Your task to perform on an android device: Go to network settings Image 0: 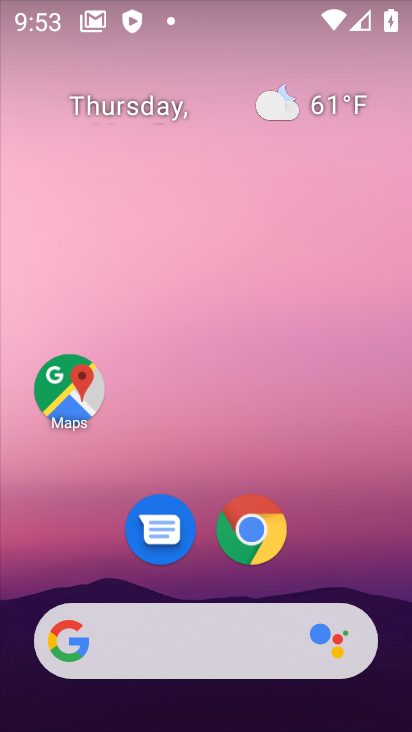
Step 0: drag from (395, 624) to (316, 173)
Your task to perform on an android device: Go to network settings Image 1: 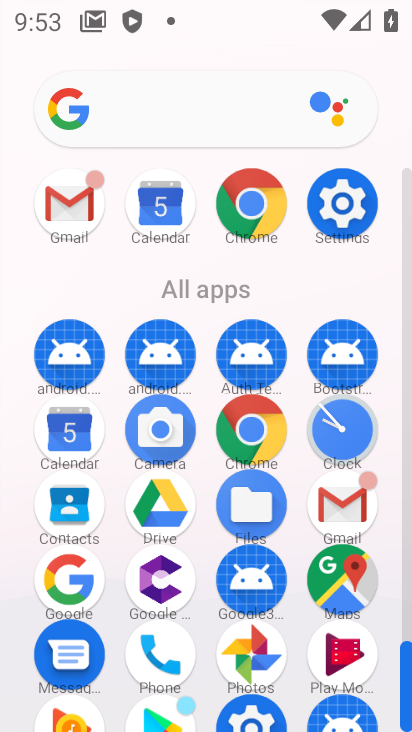
Step 1: click (330, 198)
Your task to perform on an android device: Go to network settings Image 2: 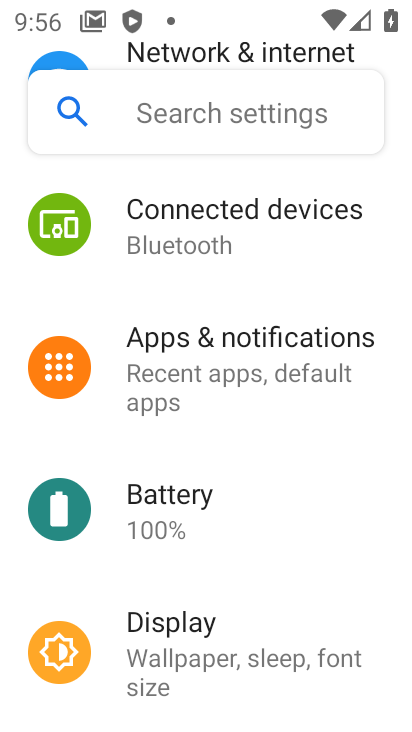
Step 2: click (261, 48)
Your task to perform on an android device: Go to network settings Image 3: 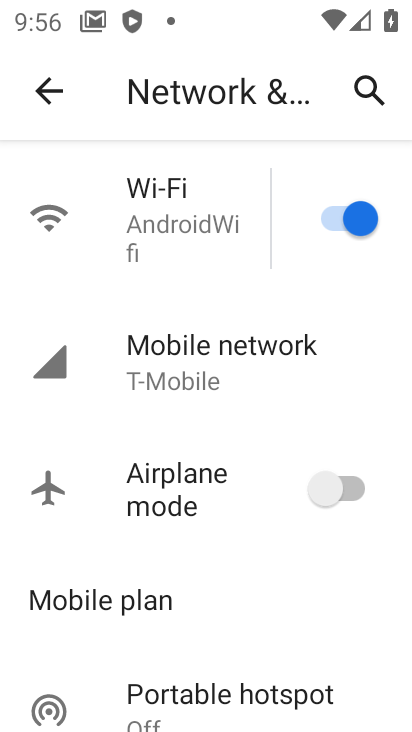
Step 3: click (167, 359)
Your task to perform on an android device: Go to network settings Image 4: 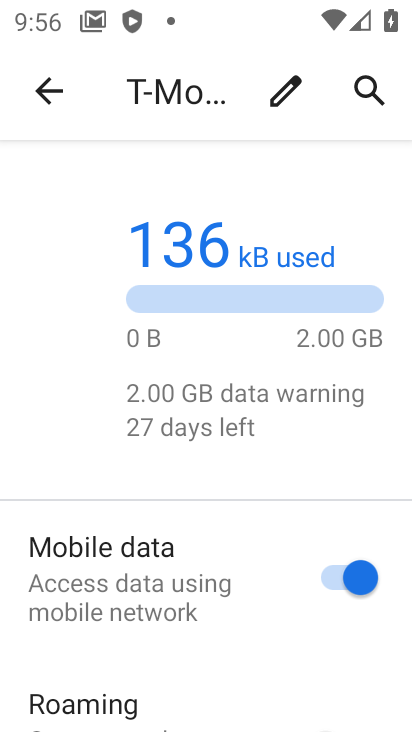
Step 4: task complete